Your task to perform on an android device: Open the Play Movies app and select the watchlist tab. Image 0: 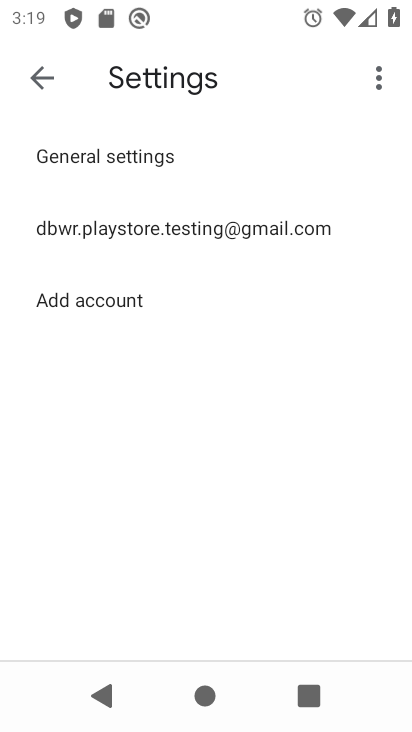
Step 0: press home button
Your task to perform on an android device: Open the Play Movies app and select the watchlist tab. Image 1: 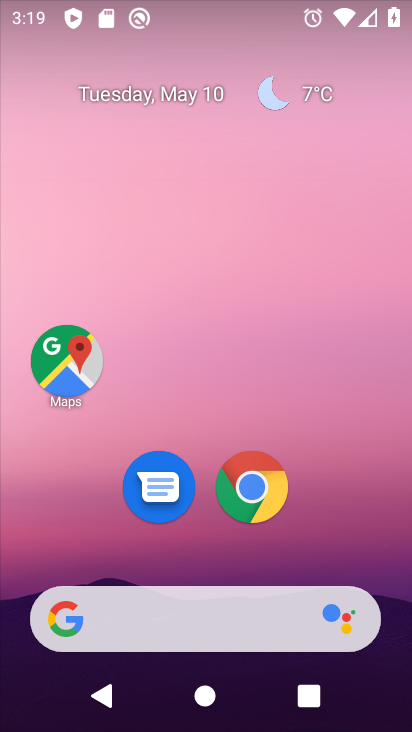
Step 1: drag from (330, 520) to (291, 115)
Your task to perform on an android device: Open the Play Movies app and select the watchlist tab. Image 2: 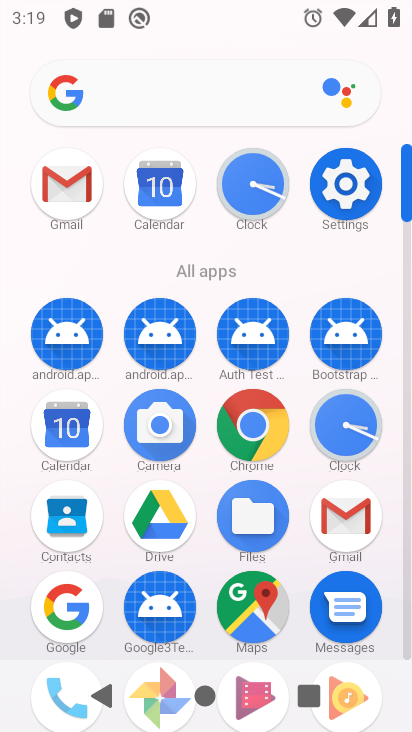
Step 2: drag from (307, 578) to (305, 454)
Your task to perform on an android device: Open the Play Movies app and select the watchlist tab. Image 3: 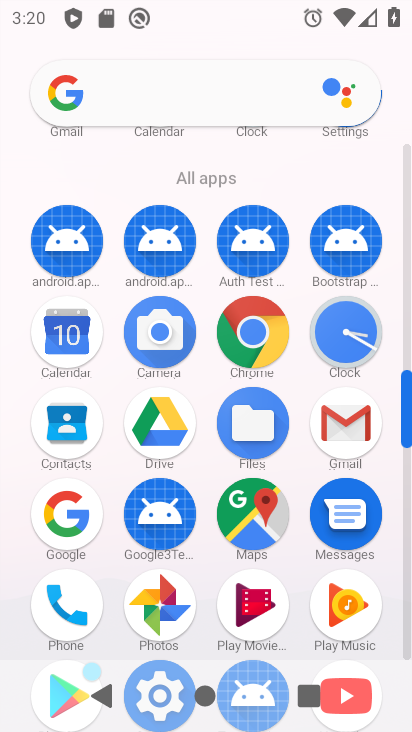
Step 3: click (267, 595)
Your task to perform on an android device: Open the Play Movies app and select the watchlist tab. Image 4: 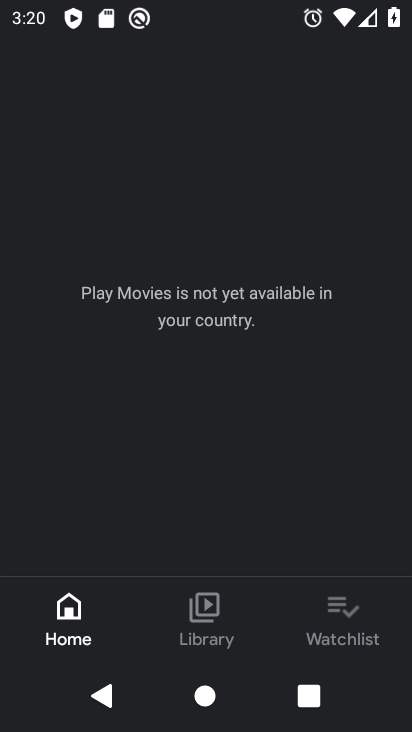
Step 4: click (356, 611)
Your task to perform on an android device: Open the Play Movies app and select the watchlist tab. Image 5: 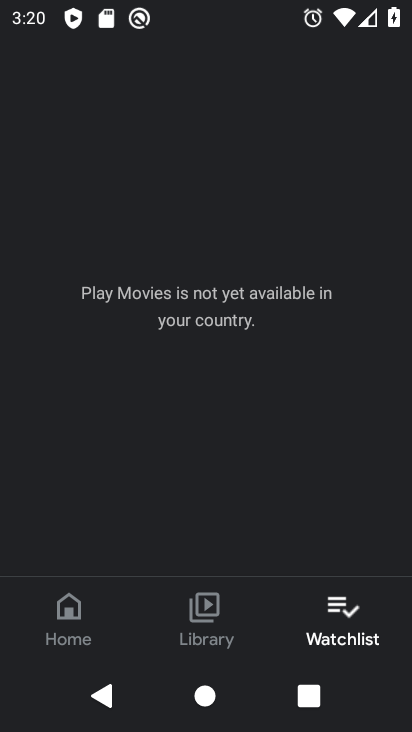
Step 5: task complete